Your task to perform on an android device: Go to accessibility settings Image 0: 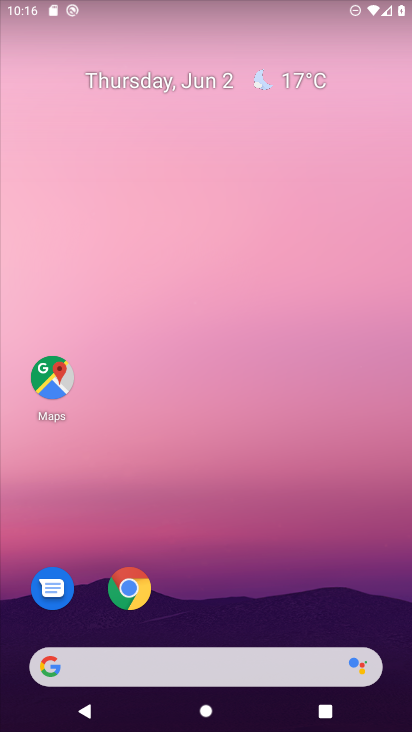
Step 0: drag from (241, 631) to (279, 135)
Your task to perform on an android device: Go to accessibility settings Image 1: 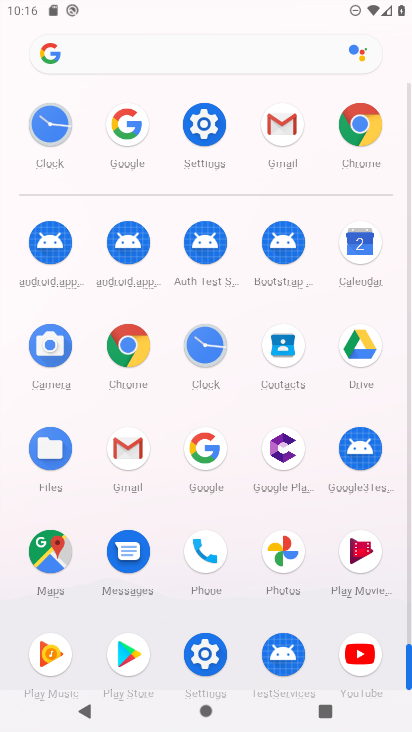
Step 1: click (216, 133)
Your task to perform on an android device: Go to accessibility settings Image 2: 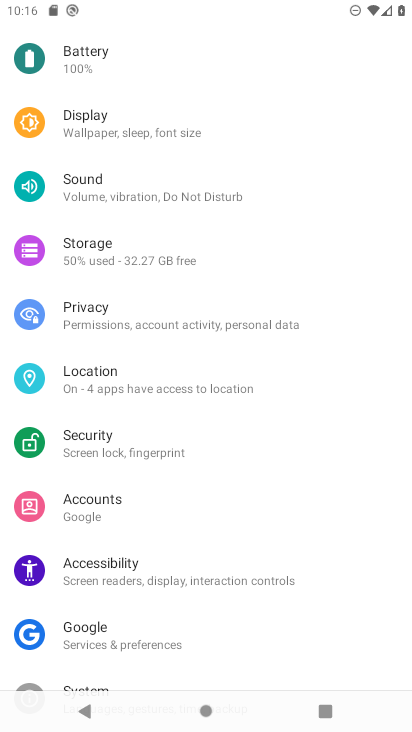
Step 2: drag from (173, 511) to (259, 321)
Your task to perform on an android device: Go to accessibility settings Image 3: 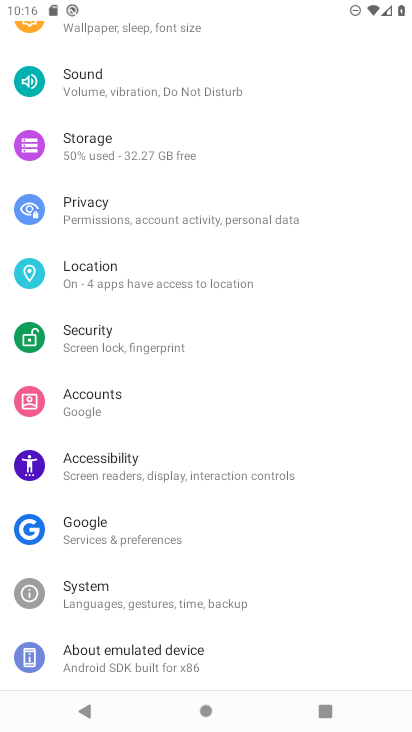
Step 3: click (198, 471)
Your task to perform on an android device: Go to accessibility settings Image 4: 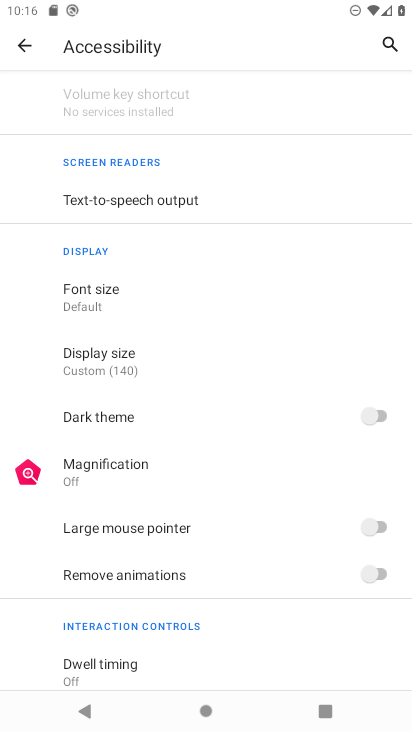
Step 4: task complete